Your task to perform on an android device: Go to CNN.com Image 0: 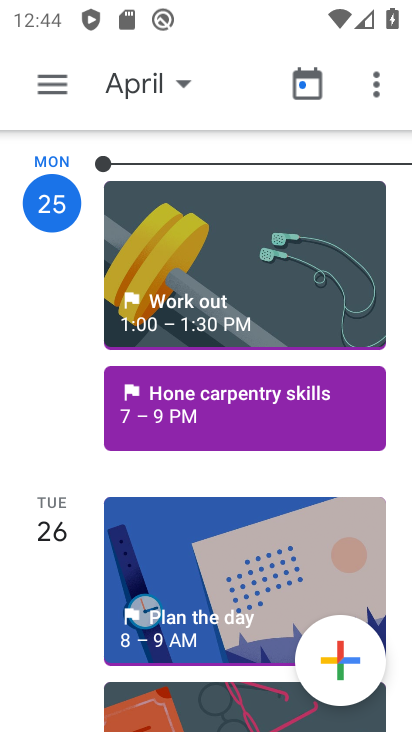
Step 0: press home button
Your task to perform on an android device: Go to CNN.com Image 1: 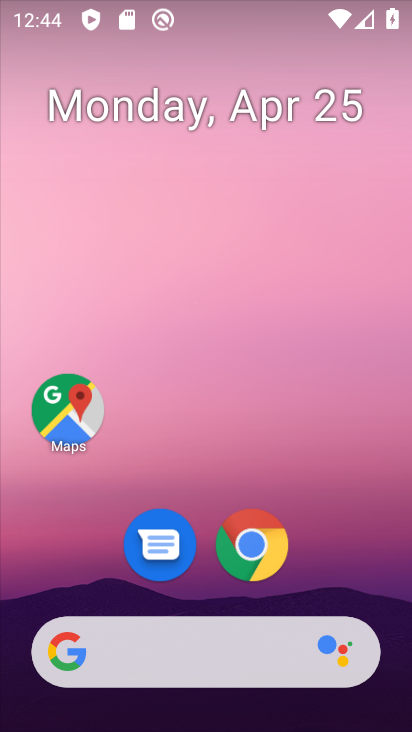
Step 1: click (251, 548)
Your task to perform on an android device: Go to CNN.com Image 2: 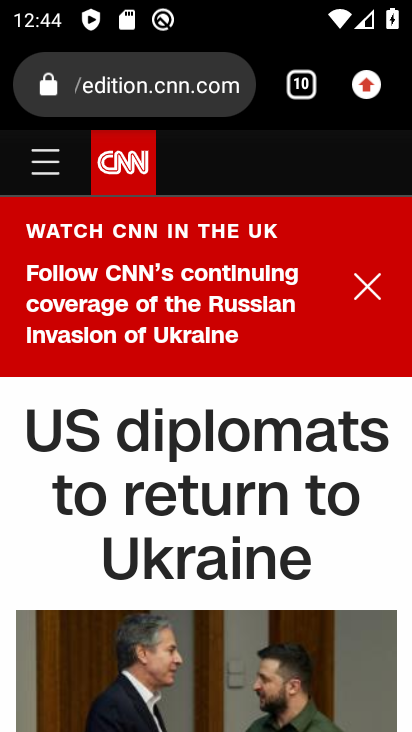
Step 2: task complete